Your task to perform on an android device: change notification settings in the gmail app Image 0: 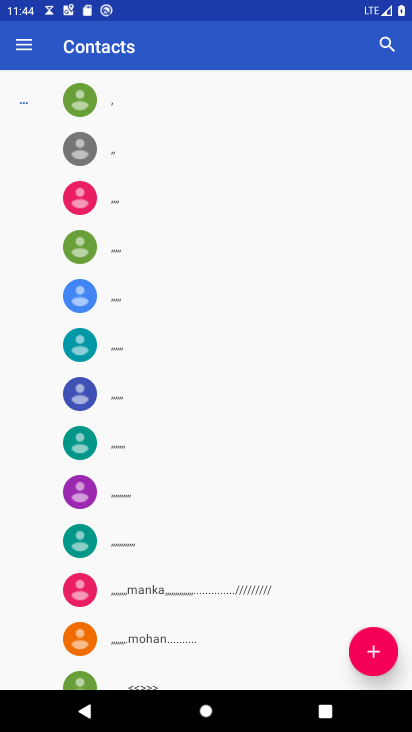
Step 0: press home button
Your task to perform on an android device: change notification settings in the gmail app Image 1: 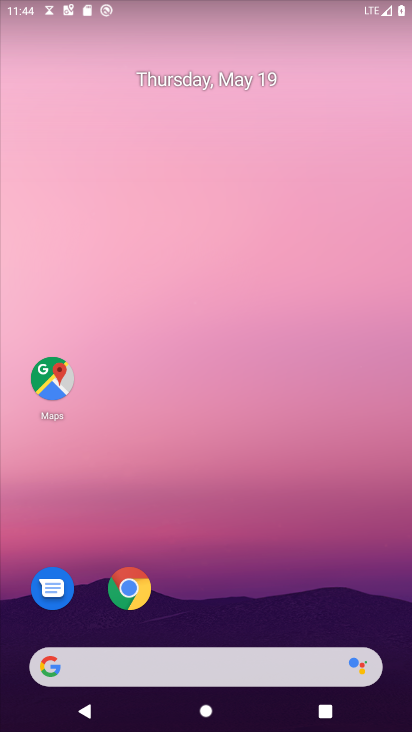
Step 1: drag from (282, 582) to (234, 50)
Your task to perform on an android device: change notification settings in the gmail app Image 2: 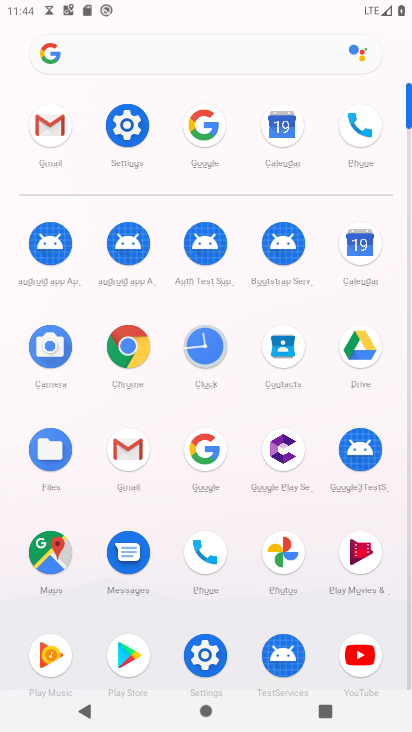
Step 2: click (128, 443)
Your task to perform on an android device: change notification settings in the gmail app Image 3: 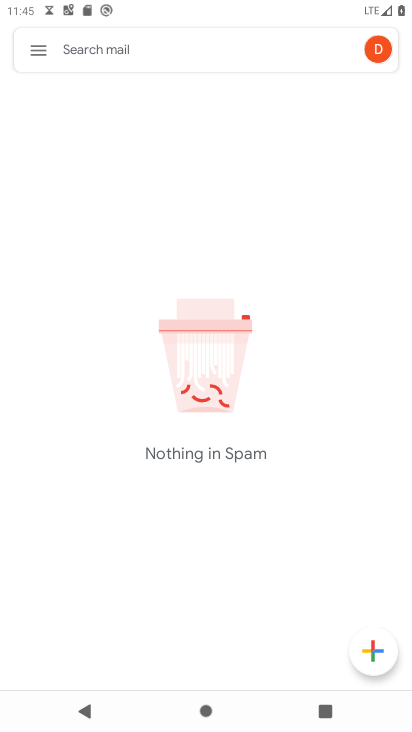
Step 3: click (38, 47)
Your task to perform on an android device: change notification settings in the gmail app Image 4: 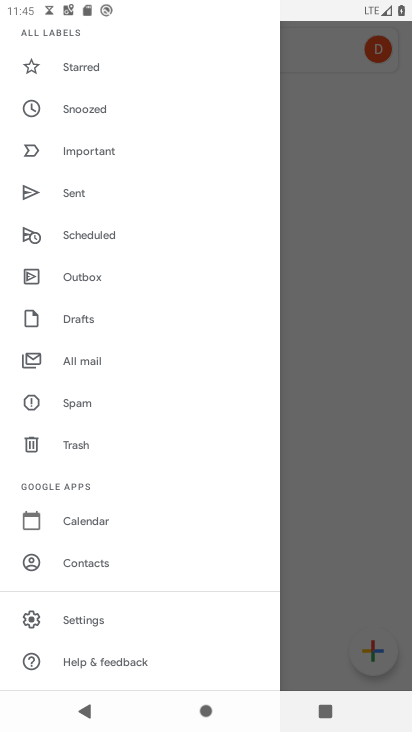
Step 4: drag from (185, 594) to (168, 426)
Your task to perform on an android device: change notification settings in the gmail app Image 5: 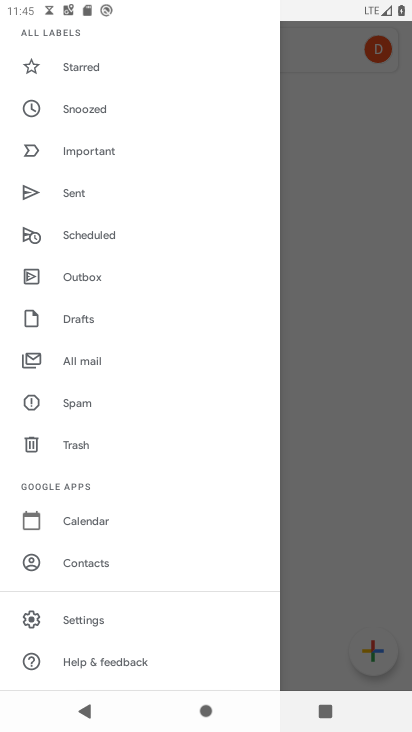
Step 5: click (120, 619)
Your task to perform on an android device: change notification settings in the gmail app Image 6: 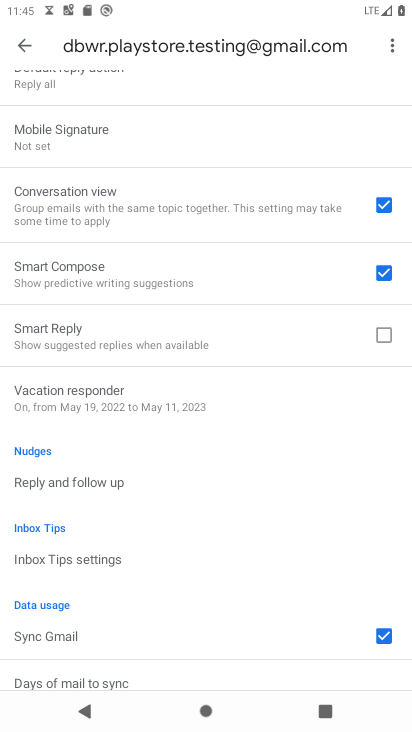
Step 6: drag from (176, 150) to (178, 627)
Your task to perform on an android device: change notification settings in the gmail app Image 7: 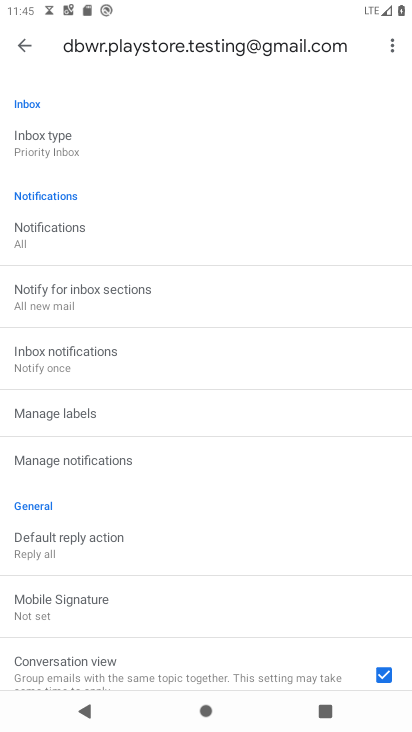
Step 7: click (91, 245)
Your task to perform on an android device: change notification settings in the gmail app Image 8: 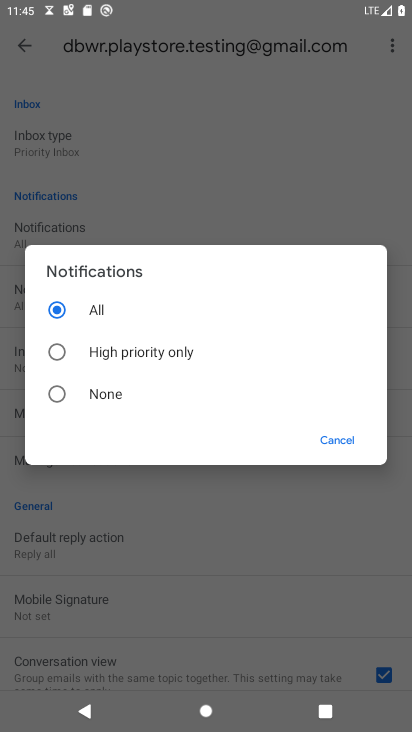
Step 8: click (113, 391)
Your task to perform on an android device: change notification settings in the gmail app Image 9: 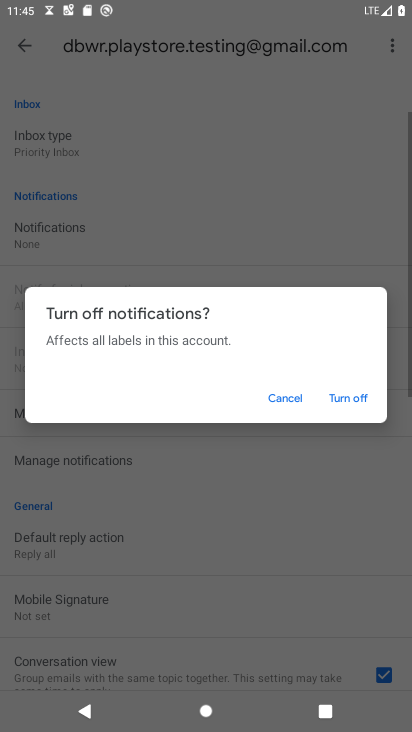
Step 9: task complete